Your task to perform on an android device: Find coffee shops on Maps Image 0: 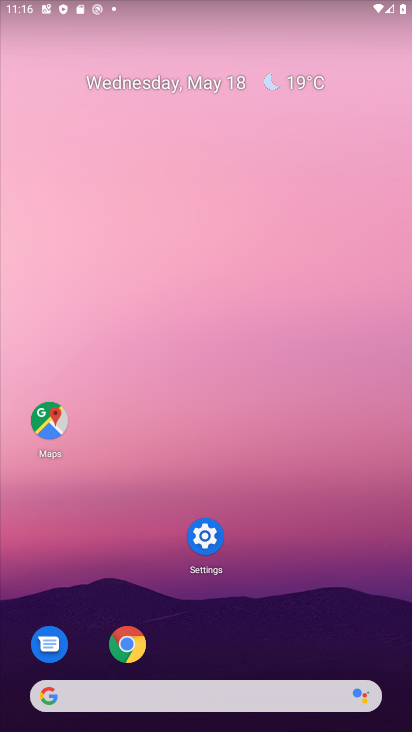
Step 0: click (43, 417)
Your task to perform on an android device: Find coffee shops on Maps Image 1: 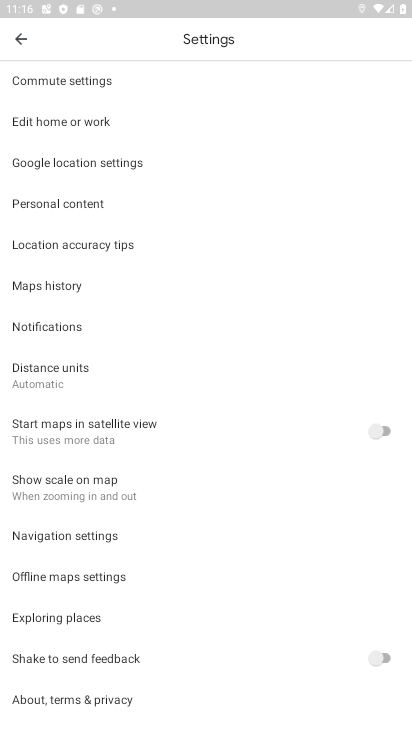
Step 1: press back button
Your task to perform on an android device: Find coffee shops on Maps Image 2: 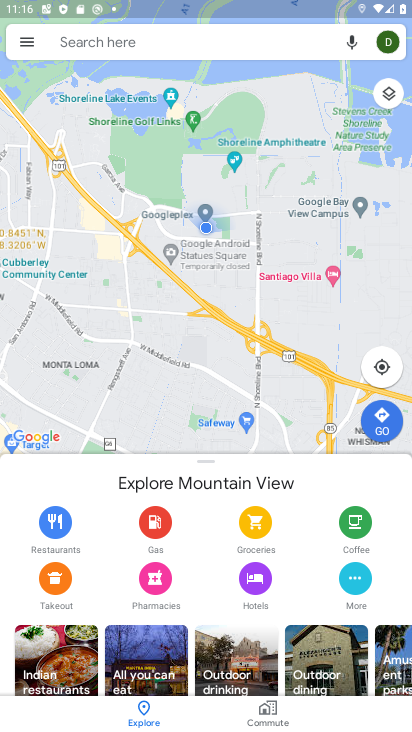
Step 2: click (226, 36)
Your task to perform on an android device: Find coffee shops on Maps Image 3: 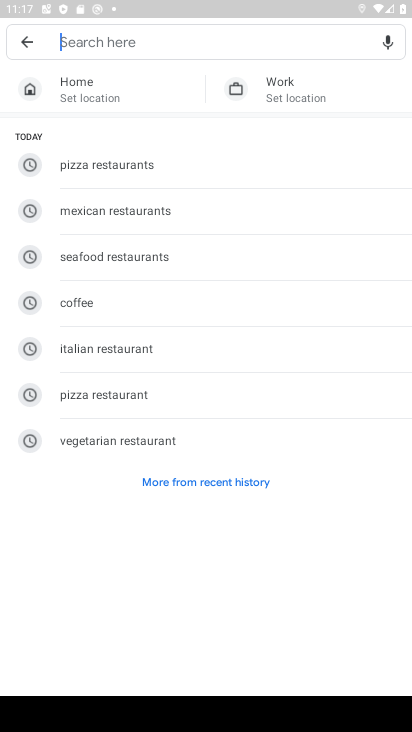
Step 3: click (226, 36)
Your task to perform on an android device: Find coffee shops on Maps Image 4: 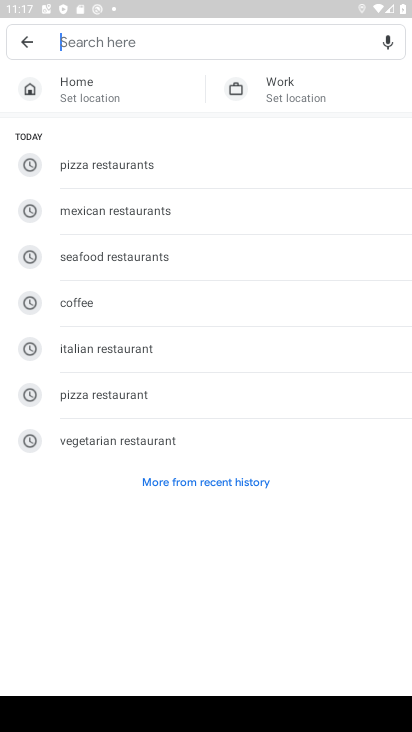
Step 4: type "coffee shops"
Your task to perform on an android device: Find coffee shops on Maps Image 5: 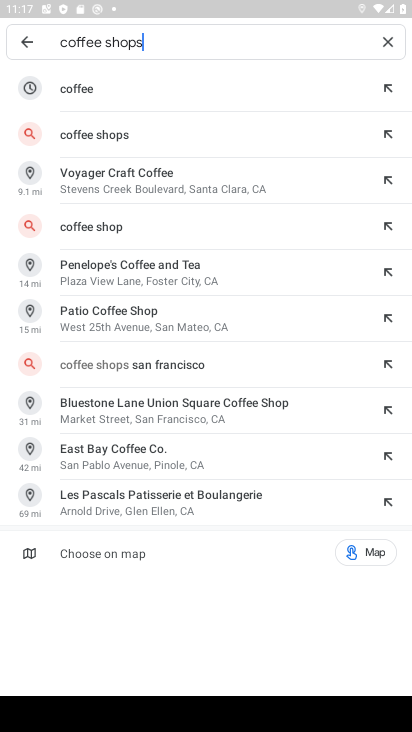
Step 5: click (119, 135)
Your task to perform on an android device: Find coffee shops on Maps Image 6: 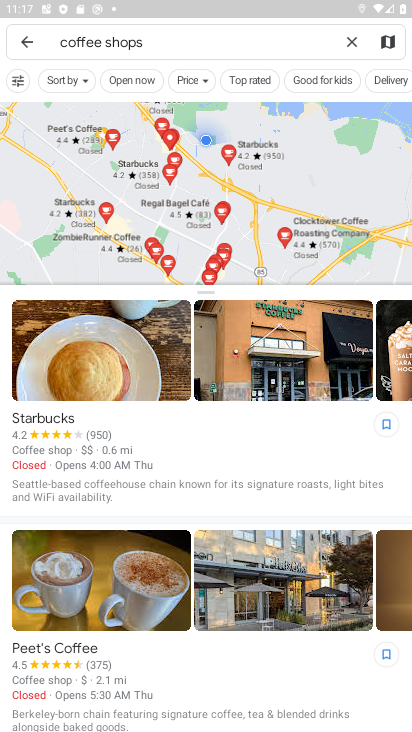
Step 6: task complete